Your task to perform on an android device: allow cookies in the chrome app Image 0: 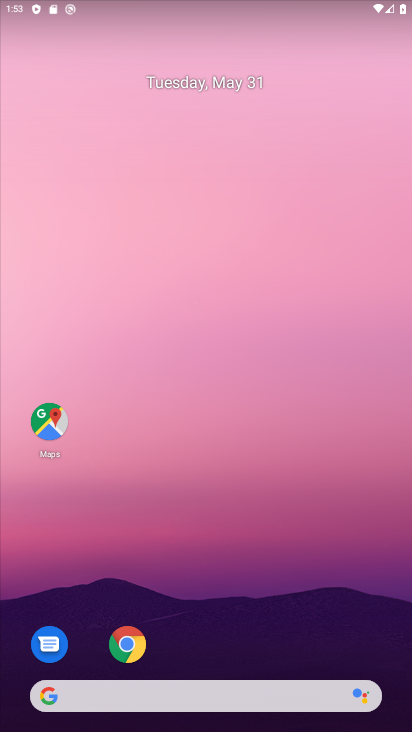
Step 0: click (129, 647)
Your task to perform on an android device: allow cookies in the chrome app Image 1: 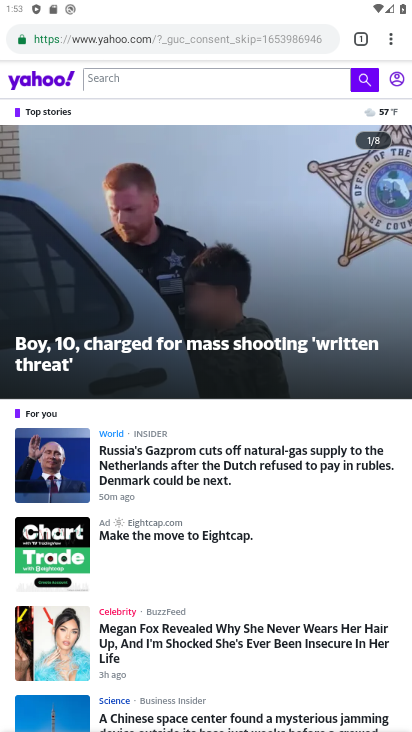
Step 1: click (388, 39)
Your task to perform on an android device: allow cookies in the chrome app Image 2: 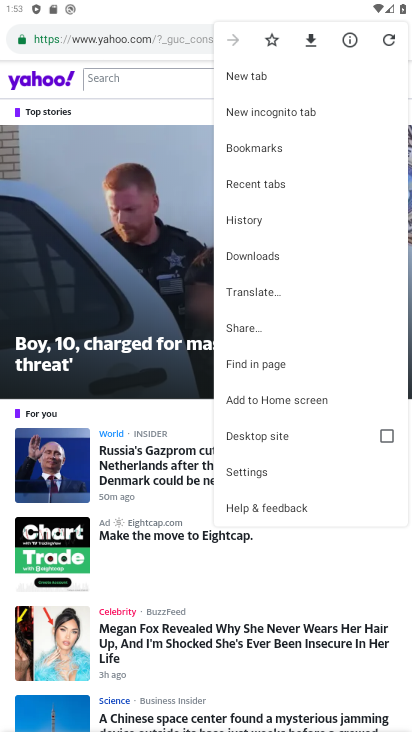
Step 2: drag from (285, 430) to (353, 101)
Your task to perform on an android device: allow cookies in the chrome app Image 3: 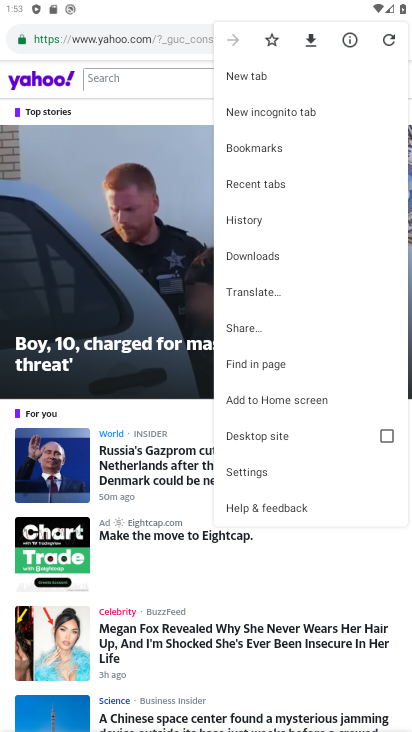
Step 3: click (251, 464)
Your task to perform on an android device: allow cookies in the chrome app Image 4: 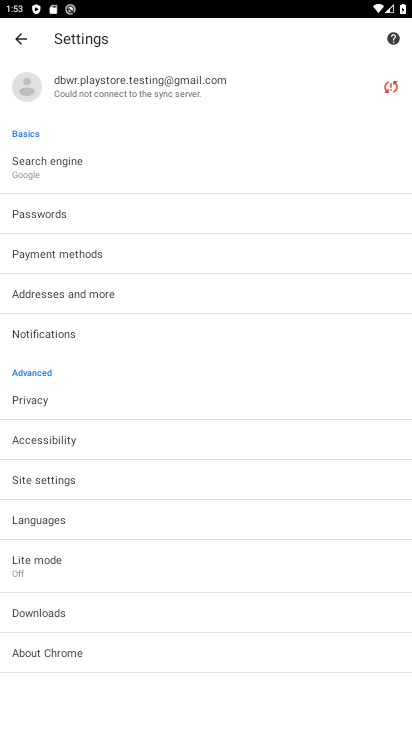
Step 4: click (55, 480)
Your task to perform on an android device: allow cookies in the chrome app Image 5: 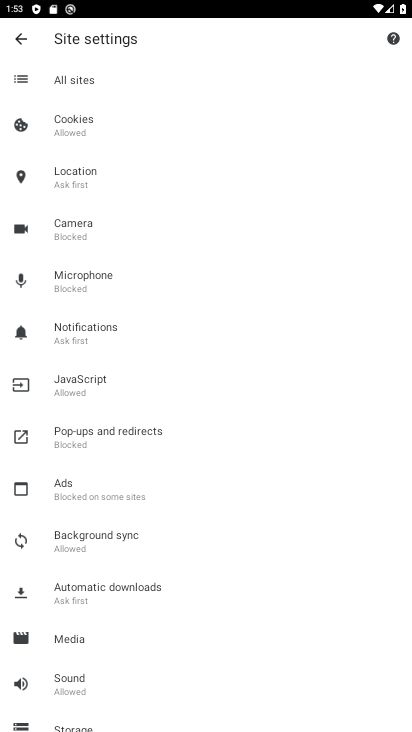
Step 5: click (65, 131)
Your task to perform on an android device: allow cookies in the chrome app Image 6: 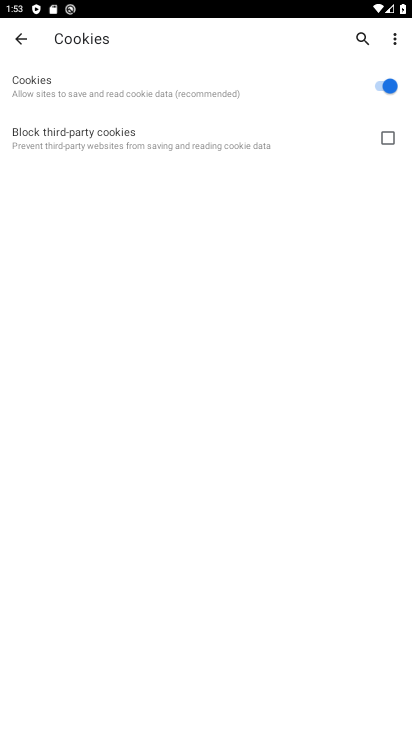
Step 6: task complete